Your task to perform on an android device: Open Google Chrome and open the bookmarks view Image 0: 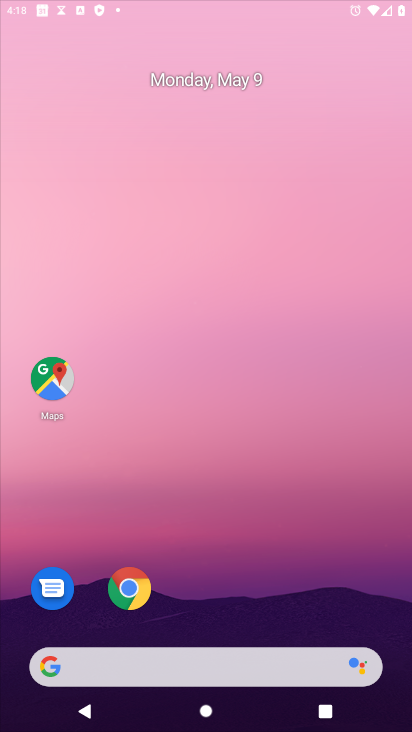
Step 0: drag from (259, 461) to (203, 121)
Your task to perform on an android device: Open Google Chrome and open the bookmarks view Image 1: 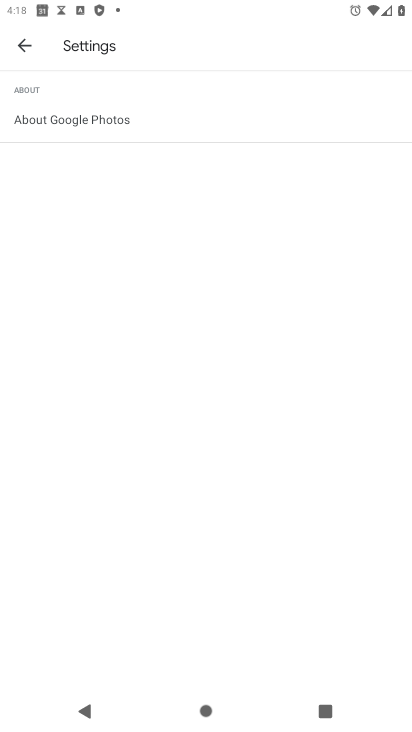
Step 1: press home button
Your task to perform on an android device: Open Google Chrome and open the bookmarks view Image 2: 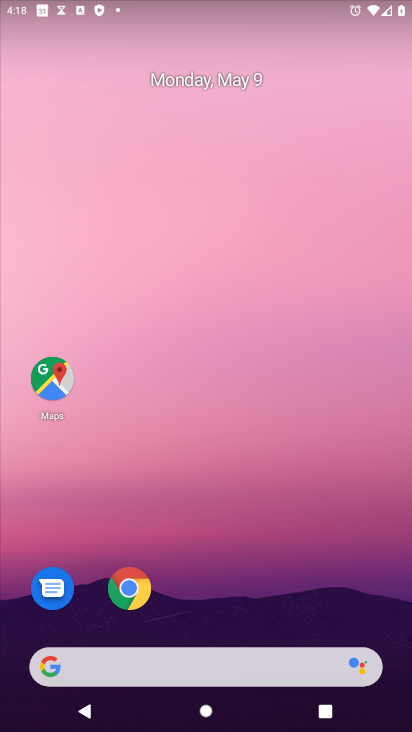
Step 2: drag from (277, 586) to (191, 113)
Your task to perform on an android device: Open Google Chrome and open the bookmarks view Image 3: 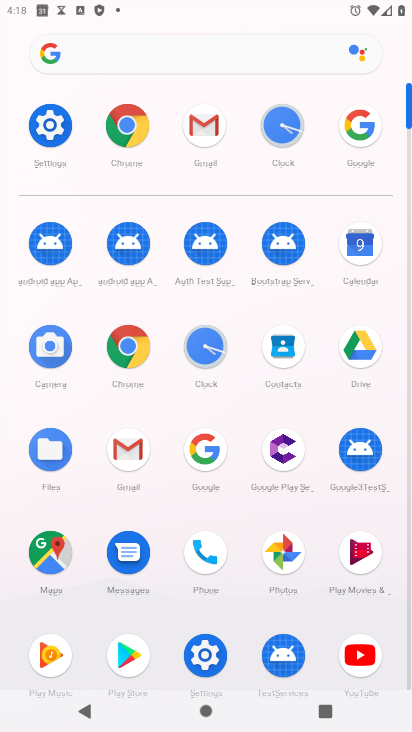
Step 3: click (125, 353)
Your task to perform on an android device: Open Google Chrome and open the bookmarks view Image 4: 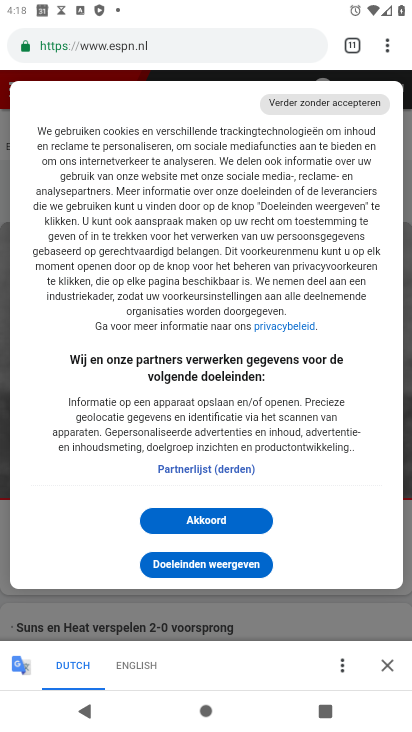
Step 4: click (391, 46)
Your task to perform on an android device: Open Google Chrome and open the bookmarks view Image 5: 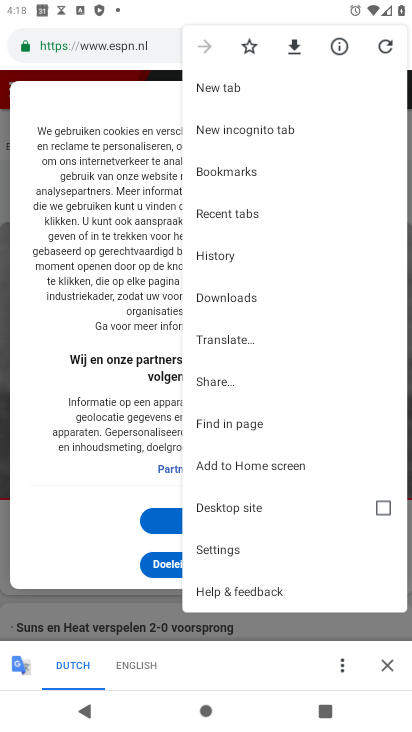
Step 5: click (239, 172)
Your task to perform on an android device: Open Google Chrome and open the bookmarks view Image 6: 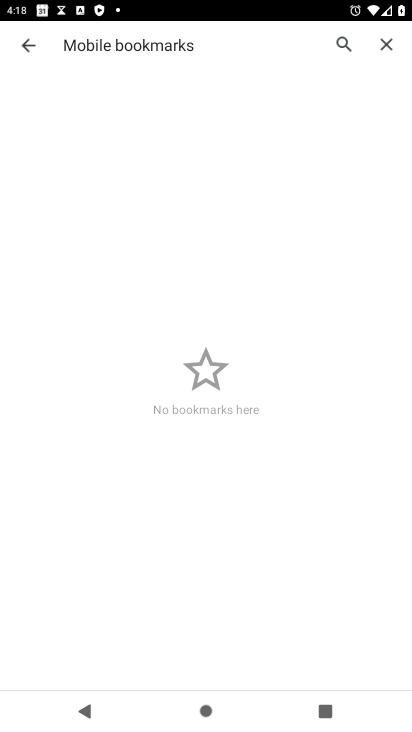
Step 6: task complete